Your task to perform on an android device: Show me popular games on the Play Store Image 0: 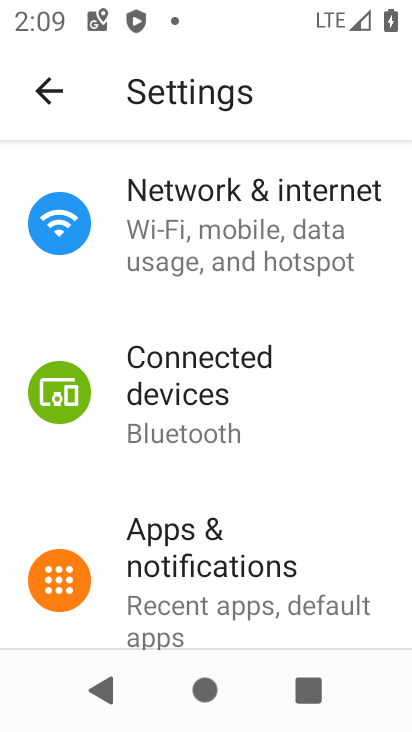
Step 0: press home button
Your task to perform on an android device: Show me popular games on the Play Store Image 1: 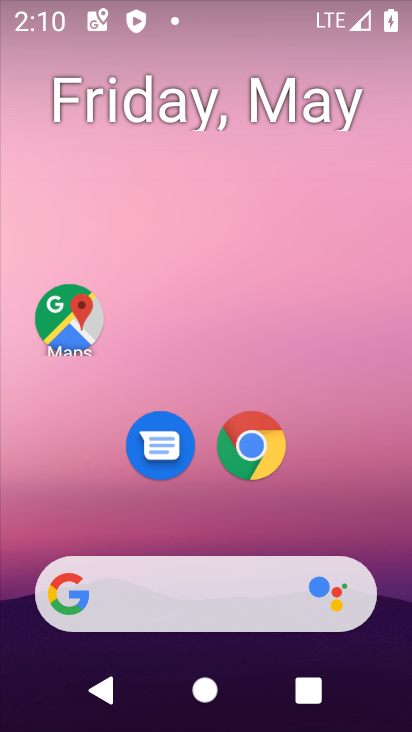
Step 1: drag from (212, 531) to (209, 53)
Your task to perform on an android device: Show me popular games on the Play Store Image 2: 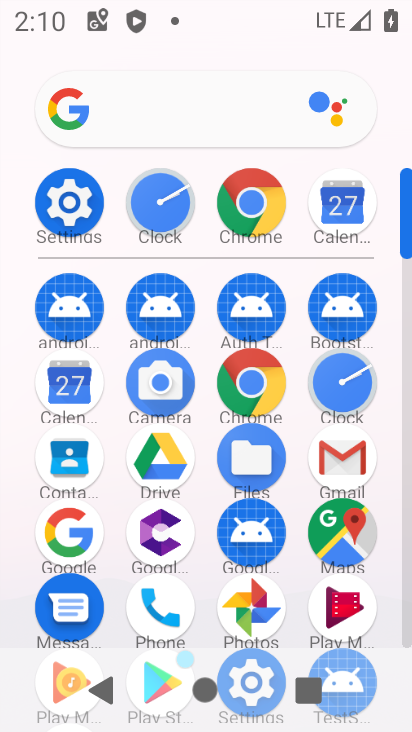
Step 2: drag from (197, 570) to (195, 197)
Your task to perform on an android device: Show me popular games on the Play Store Image 3: 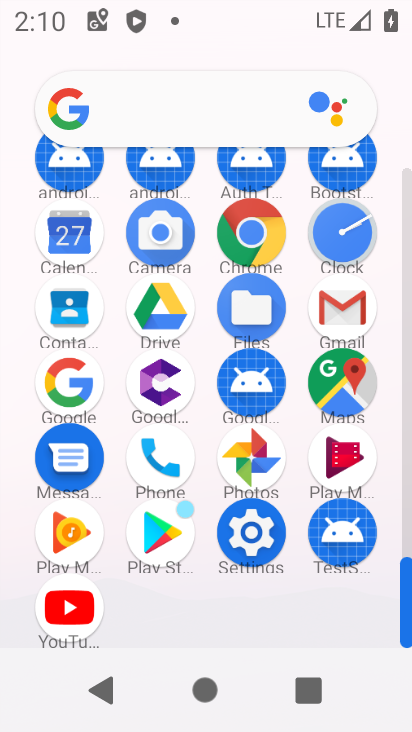
Step 3: click (160, 529)
Your task to perform on an android device: Show me popular games on the Play Store Image 4: 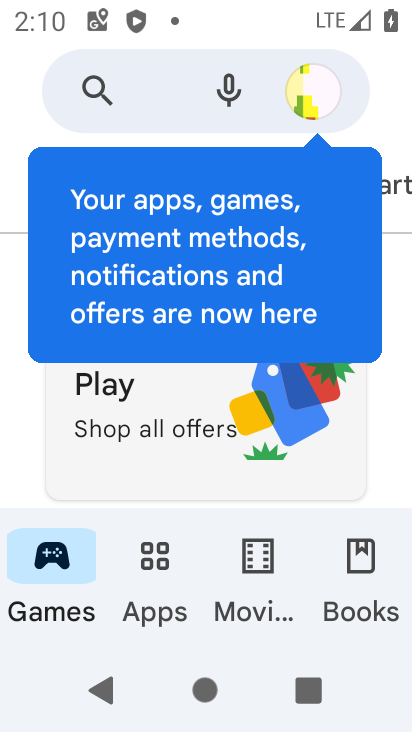
Step 4: drag from (195, 478) to (164, 301)
Your task to perform on an android device: Show me popular games on the Play Store Image 5: 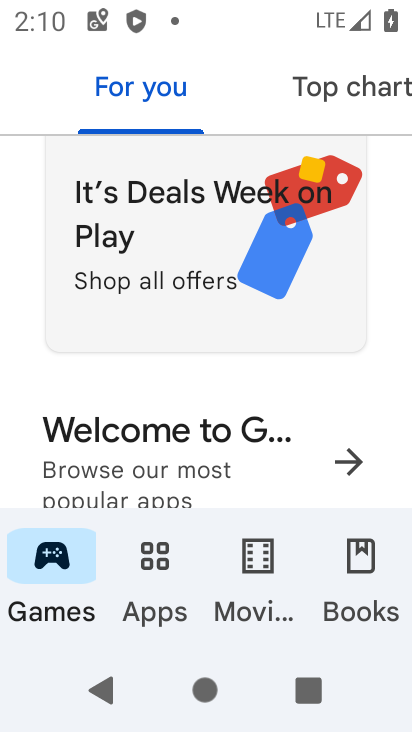
Step 5: drag from (203, 455) to (192, 109)
Your task to perform on an android device: Show me popular games on the Play Store Image 6: 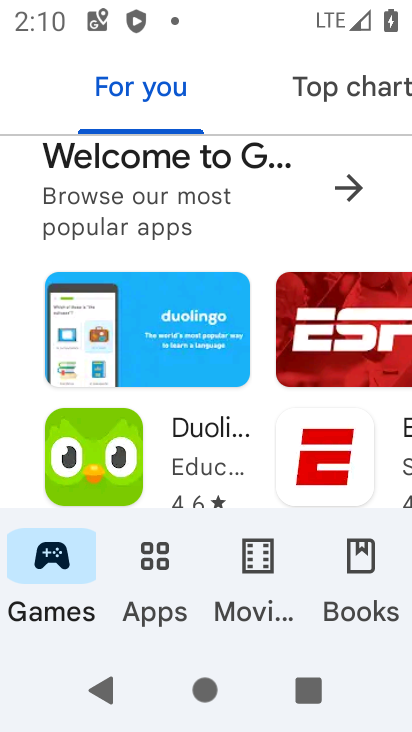
Step 6: drag from (236, 481) to (208, 217)
Your task to perform on an android device: Show me popular games on the Play Store Image 7: 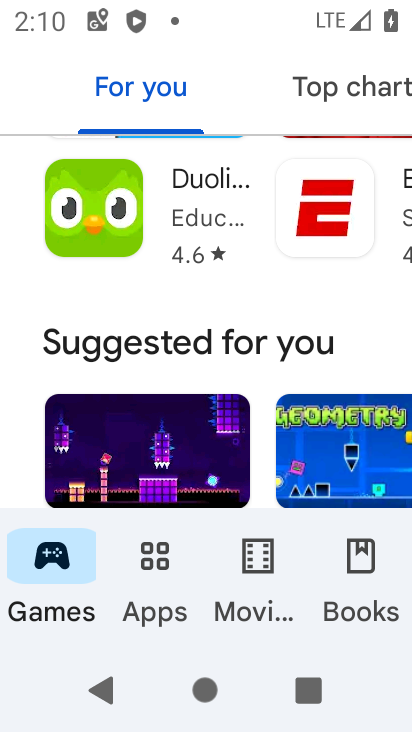
Step 7: drag from (246, 503) to (235, 256)
Your task to perform on an android device: Show me popular games on the Play Store Image 8: 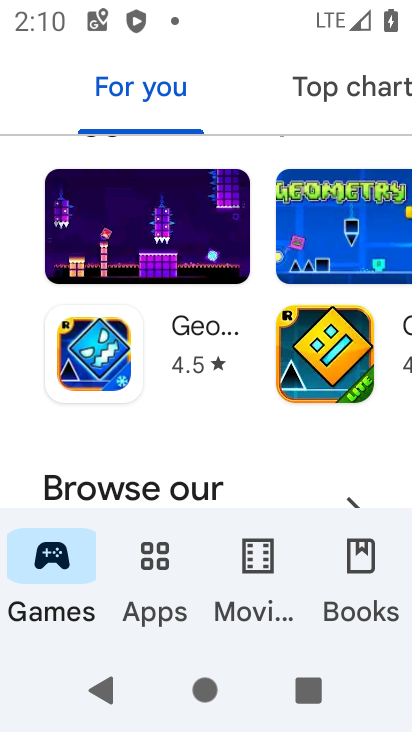
Step 8: drag from (278, 483) to (231, 313)
Your task to perform on an android device: Show me popular games on the Play Store Image 9: 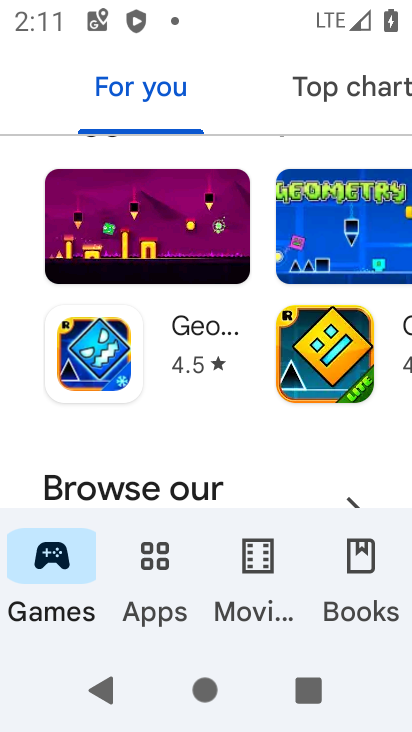
Step 9: click (311, 493)
Your task to perform on an android device: Show me popular games on the Play Store Image 10: 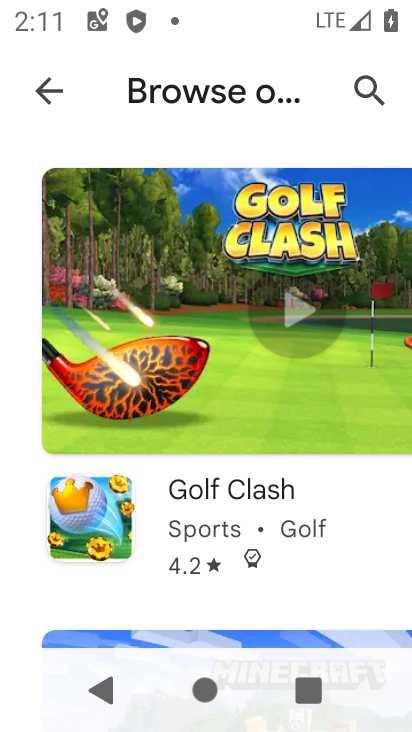
Step 10: task complete